Your task to perform on an android device: Open Google Maps and go to "Timeline" Image 0: 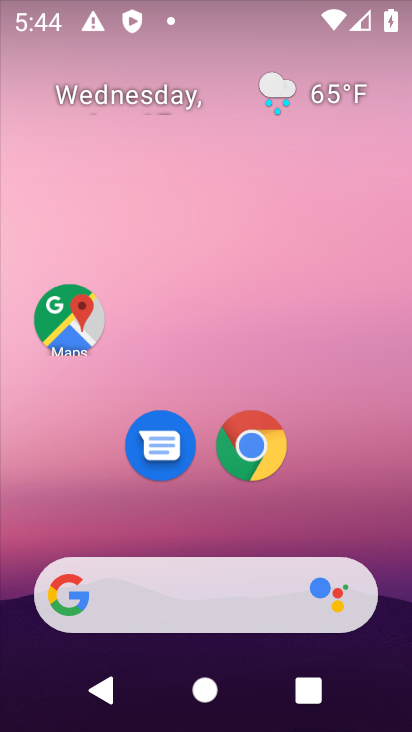
Step 0: click (85, 331)
Your task to perform on an android device: Open Google Maps and go to "Timeline" Image 1: 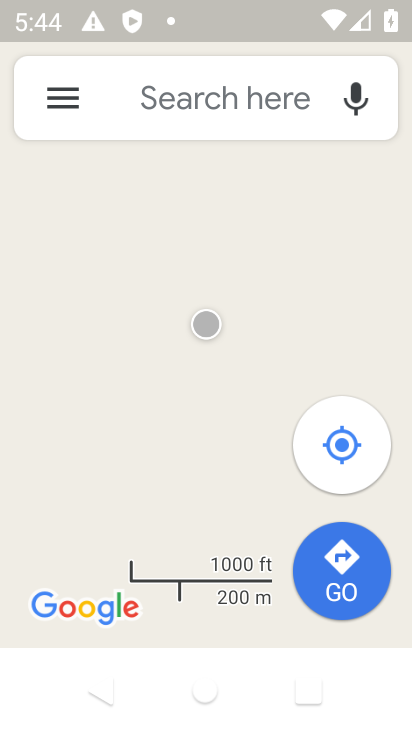
Step 1: click (54, 109)
Your task to perform on an android device: Open Google Maps and go to "Timeline" Image 2: 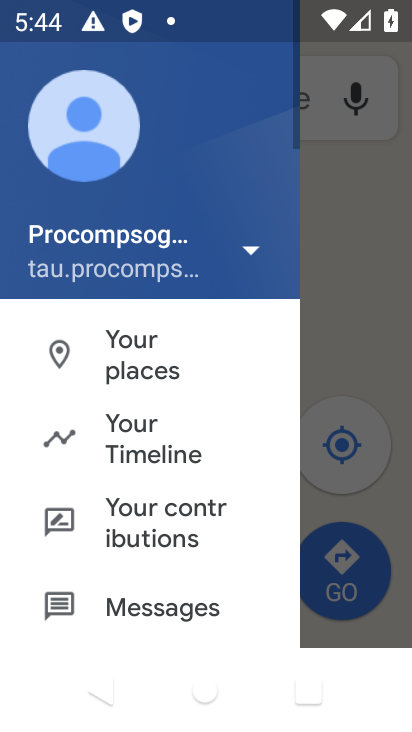
Step 2: click (119, 428)
Your task to perform on an android device: Open Google Maps and go to "Timeline" Image 3: 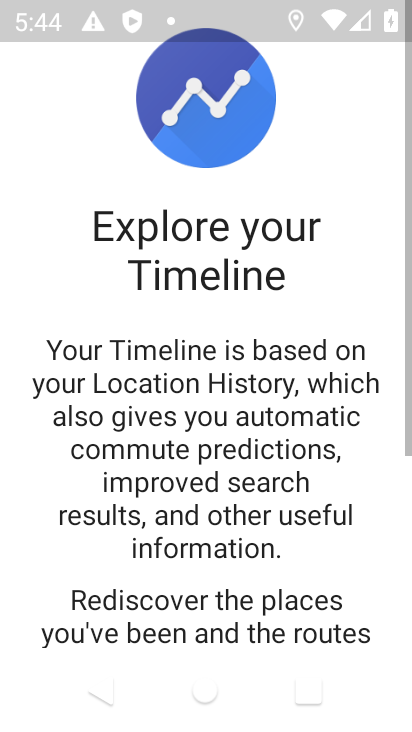
Step 3: drag from (256, 598) to (294, 181)
Your task to perform on an android device: Open Google Maps and go to "Timeline" Image 4: 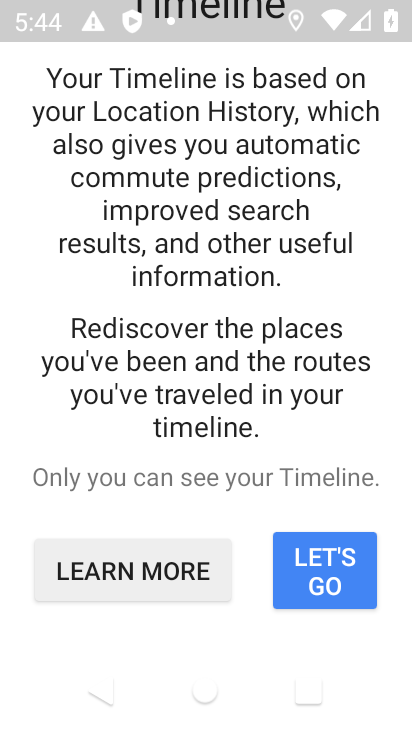
Step 4: click (308, 571)
Your task to perform on an android device: Open Google Maps and go to "Timeline" Image 5: 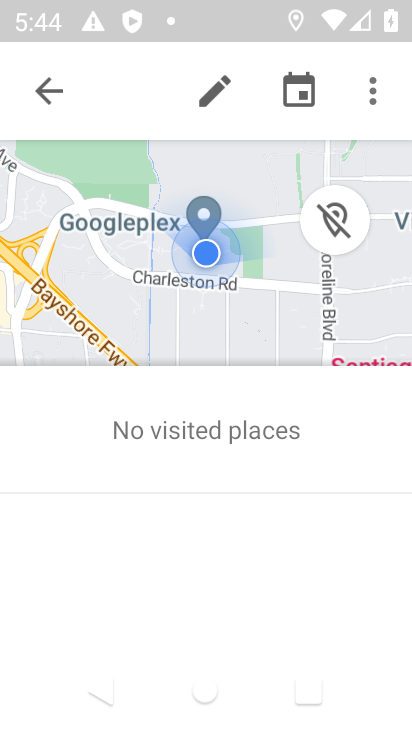
Step 5: task complete